Your task to perform on an android device: uninstall "Google Home" Image 0: 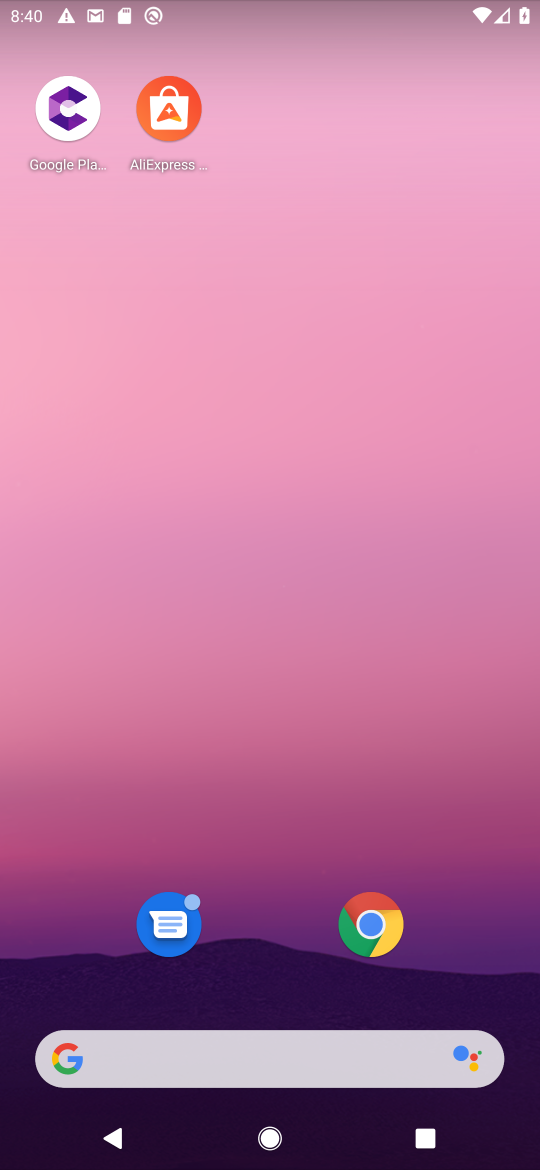
Step 0: press home button
Your task to perform on an android device: uninstall "Google Home" Image 1: 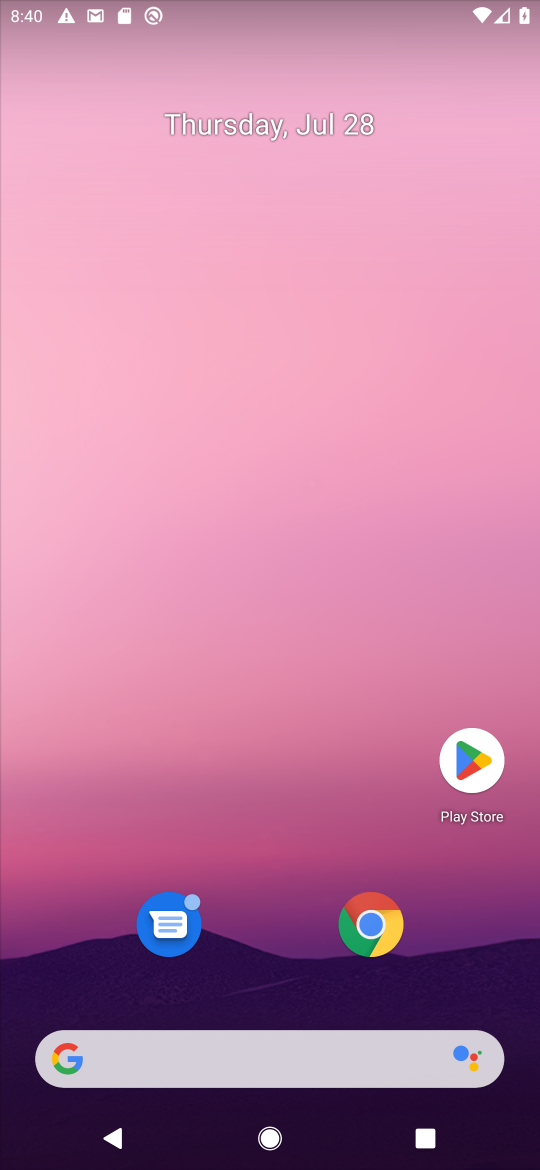
Step 1: drag from (223, 1049) to (414, 126)
Your task to perform on an android device: uninstall "Google Home" Image 2: 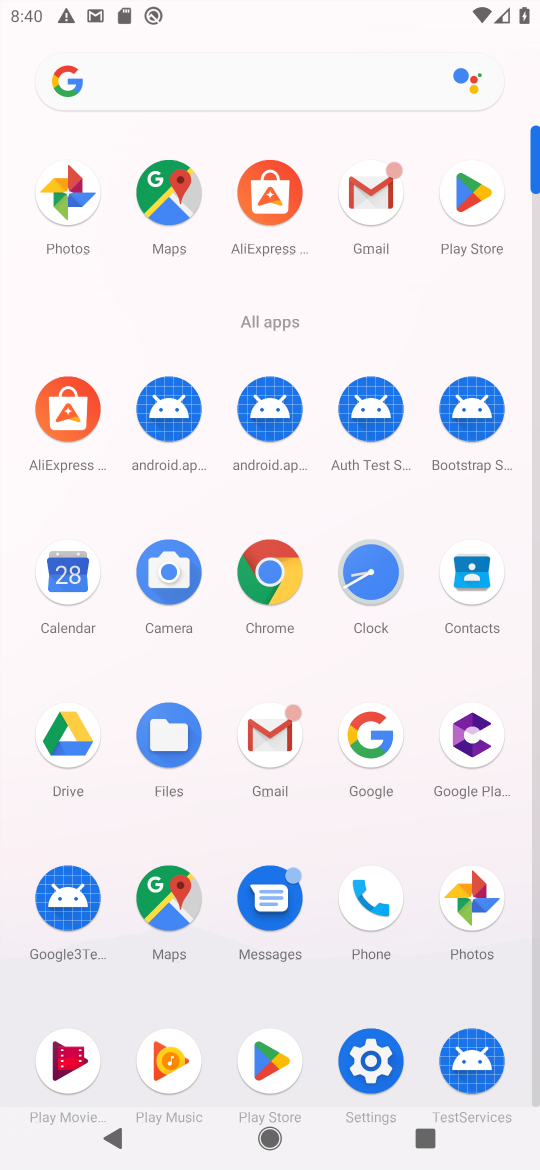
Step 2: click (489, 186)
Your task to perform on an android device: uninstall "Google Home" Image 3: 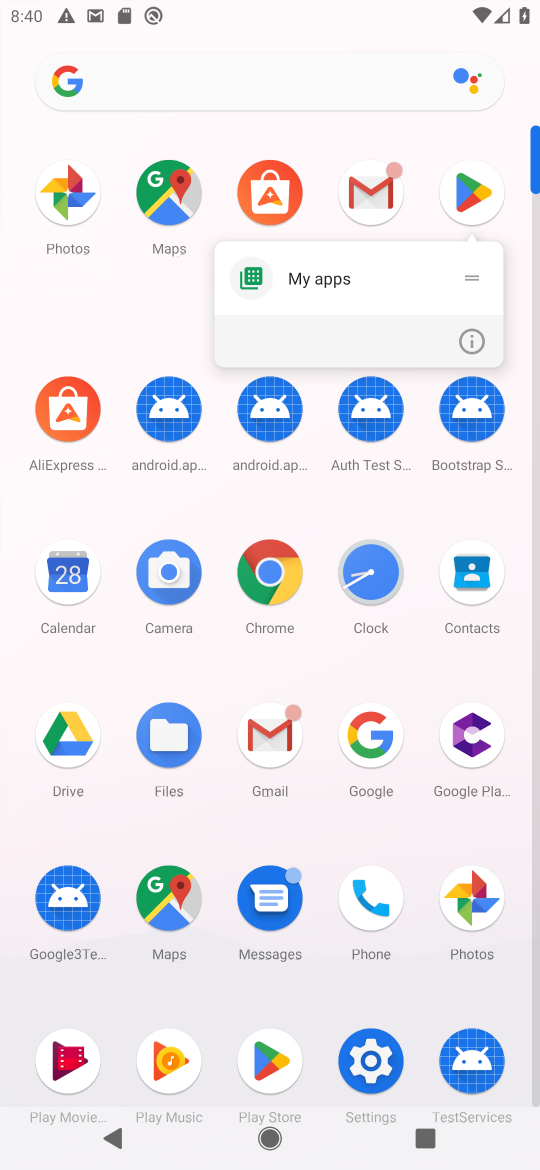
Step 3: click (454, 185)
Your task to perform on an android device: uninstall "Google Home" Image 4: 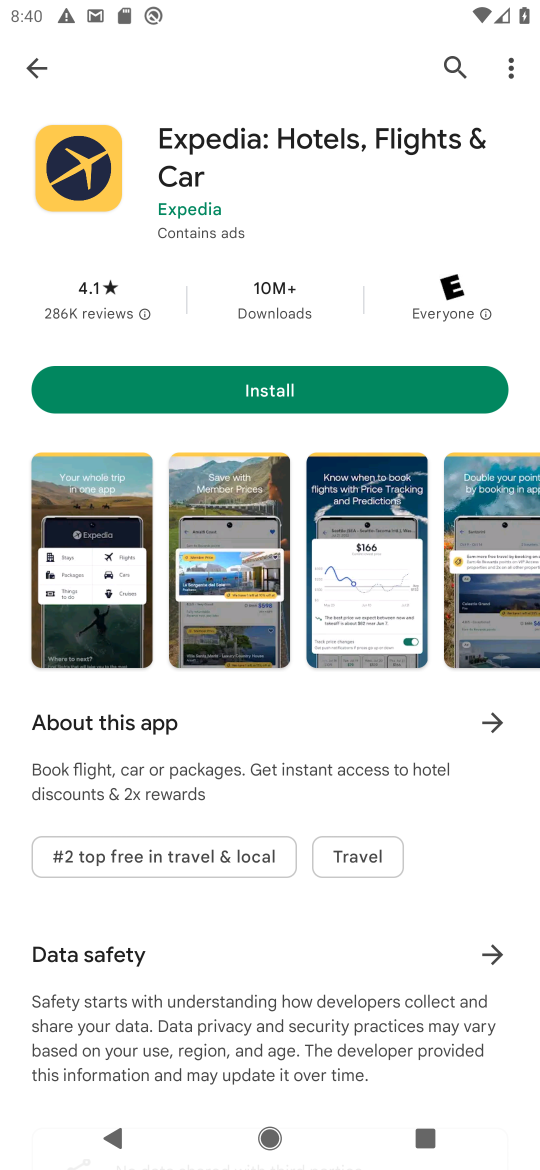
Step 4: click (444, 56)
Your task to perform on an android device: uninstall "Google Home" Image 5: 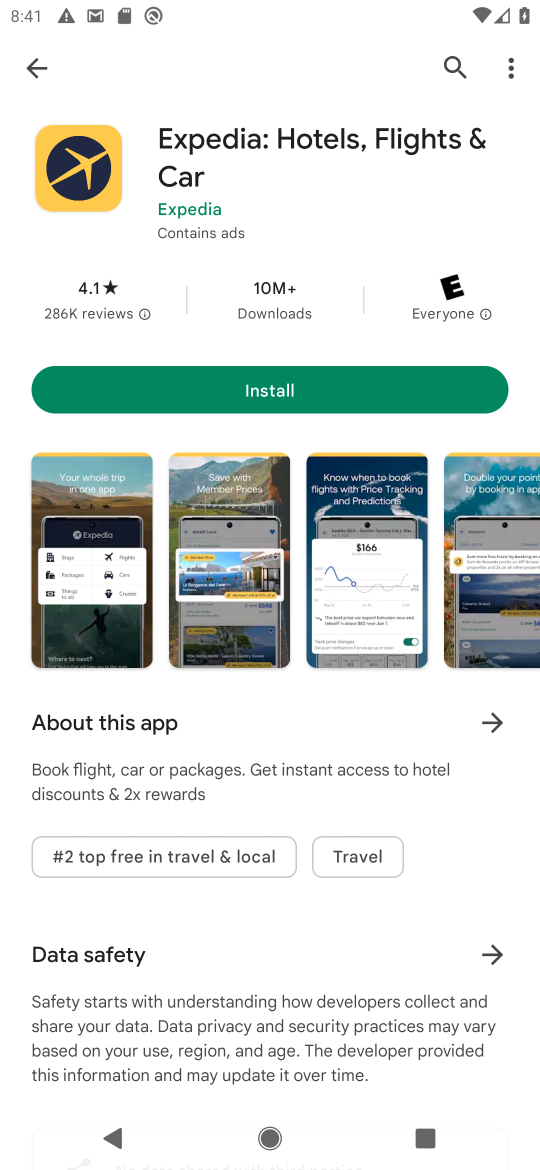
Step 5: click (450, 60)
Your task to perform on an android device: uninstall "Google Home" Image 6: 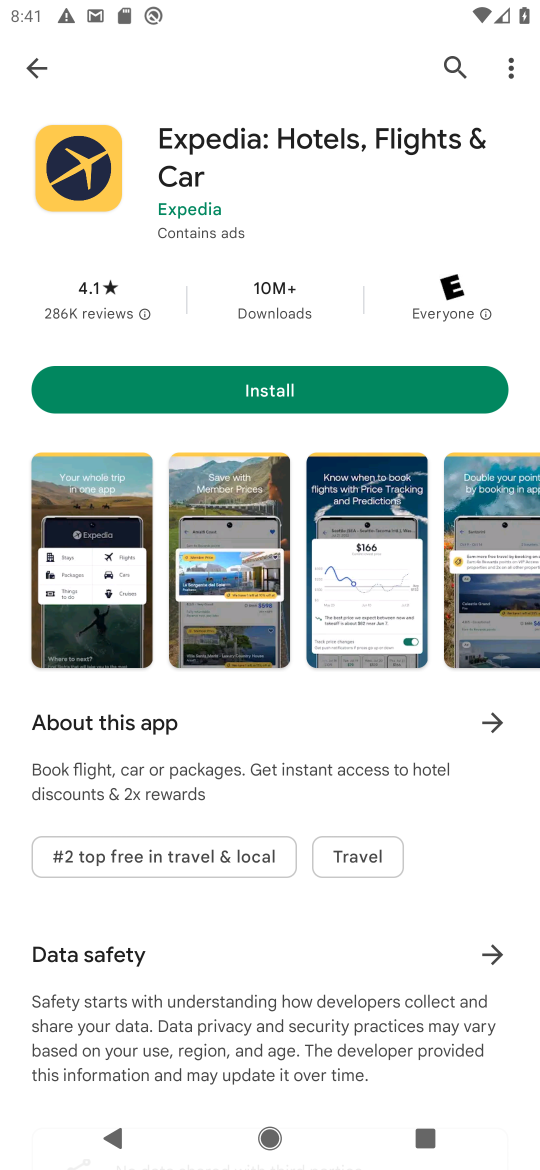
Step 6: click (40, 55)
Your task to perform on an android device: uninstall "Google Home" Image 7: 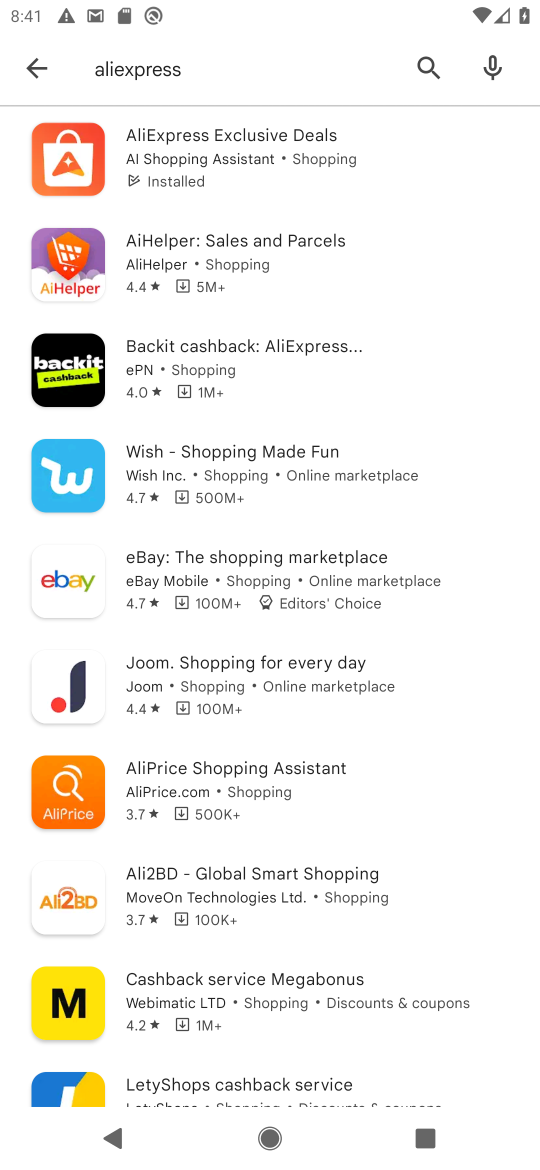
Step 7: click (416, 63)
Your task to perform on an android device: uninstall "Google Home" Image 8: 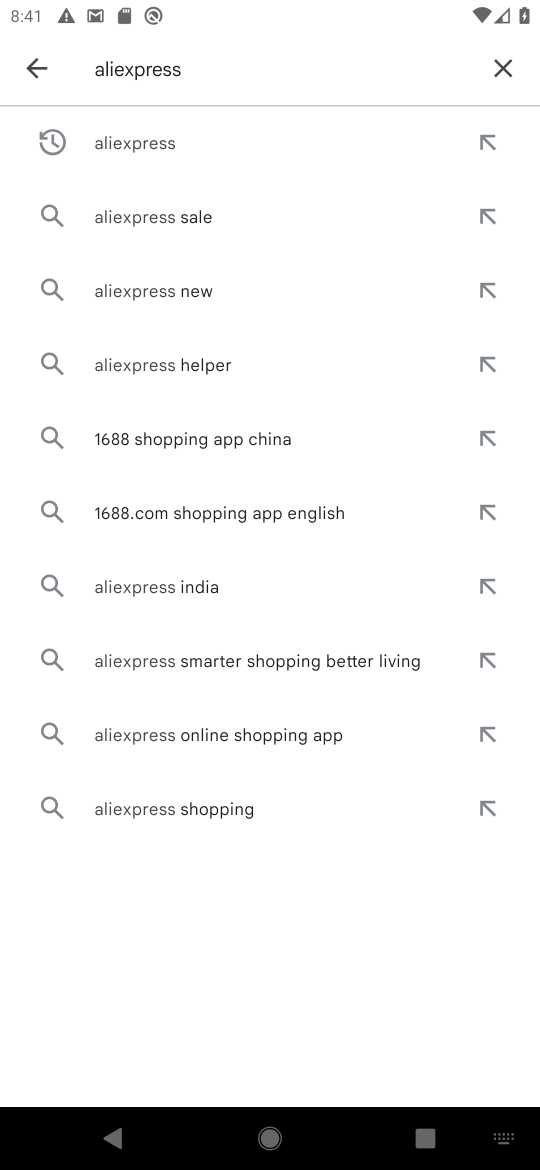
Step 8: click (496, 61)
Your task to perform on an android device: uninstall "Google Home" Image 9: 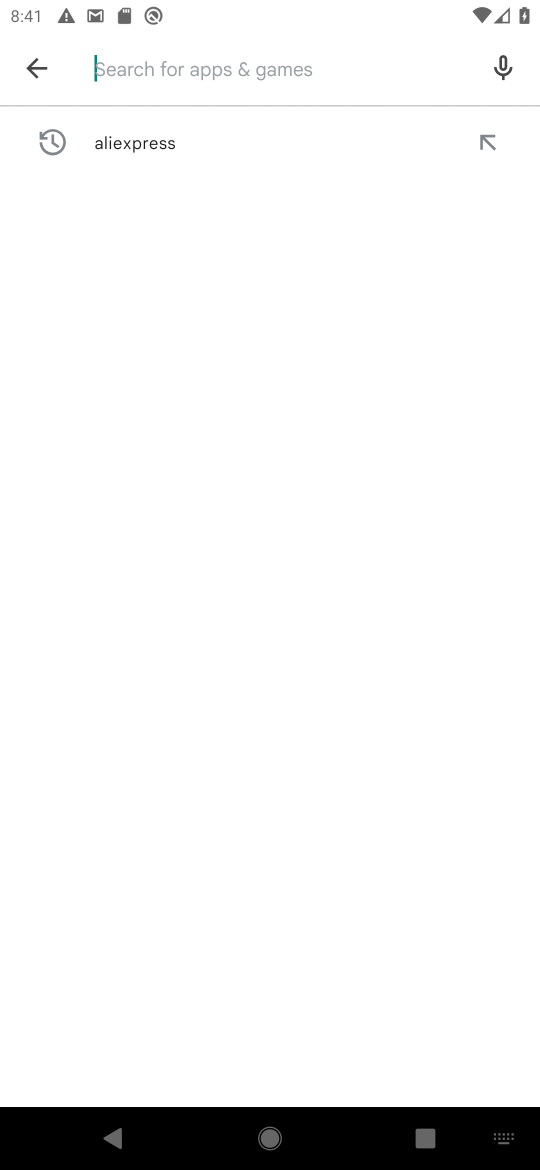
Step 9: click (91, 60)
Your task to perform on an android device: uninstall "Google Home" Image 10: 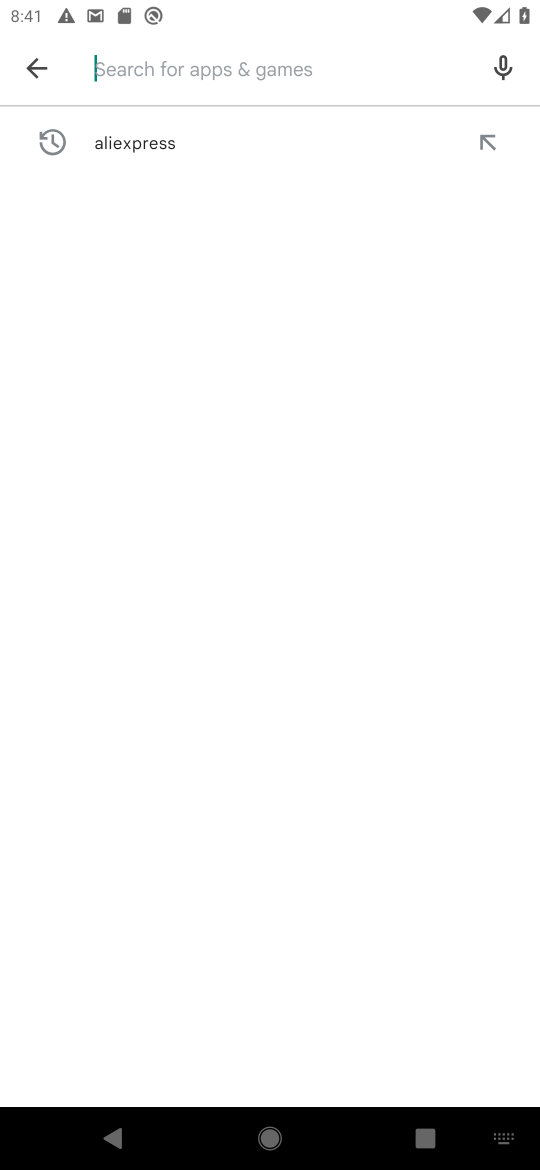
Step 10: type "Google Home"
Your task to perform on an android device: uninstall "Google Home" Image 11: 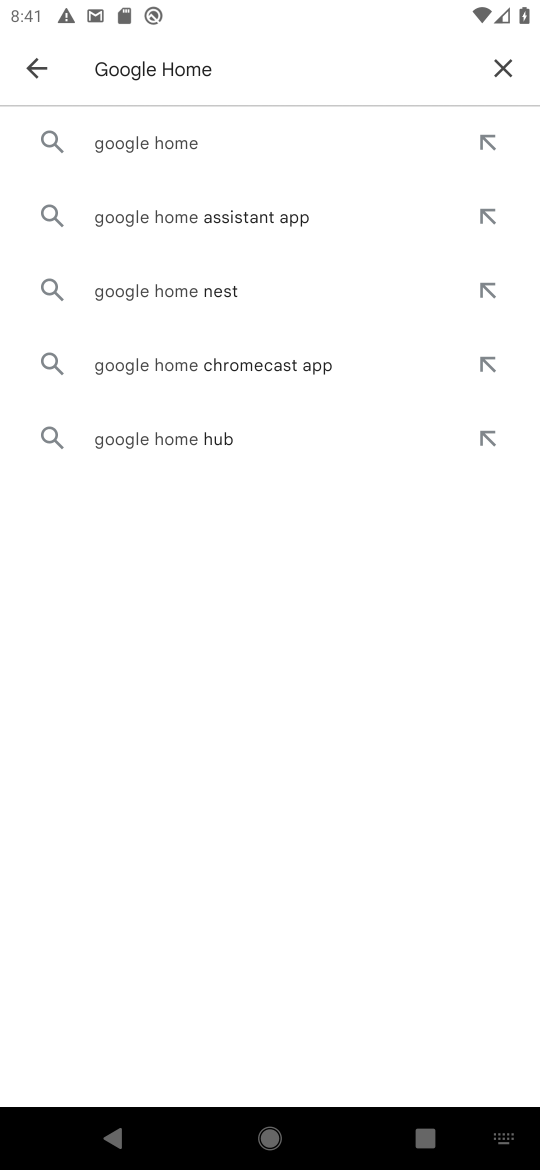
Step 11: click (174, 139)
Your task to perform on an android device: uninstall "Google Home" Image 12: 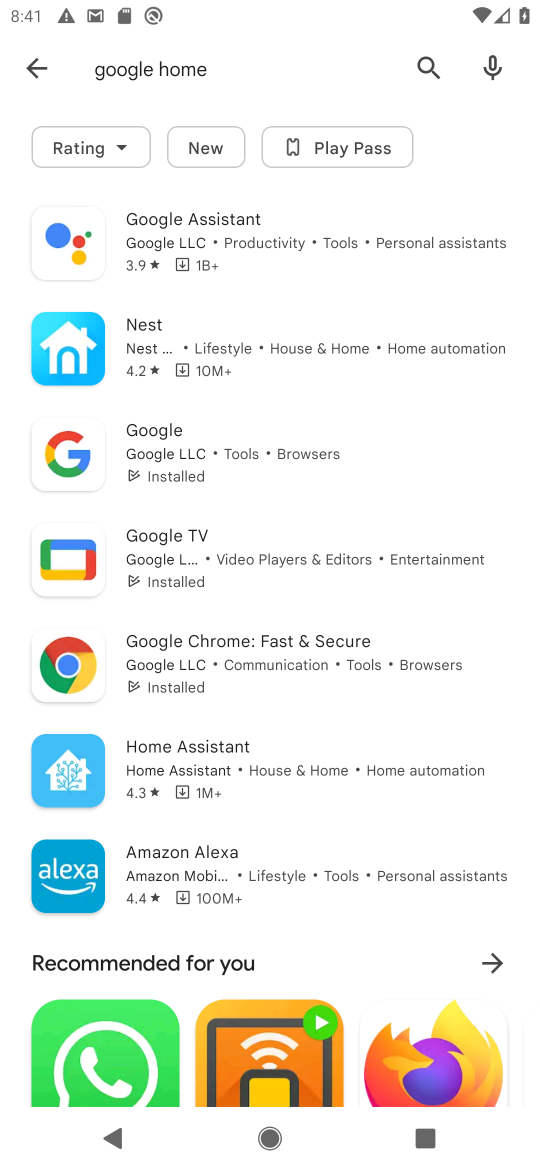
Step 12: click (189, 439)
Your task to perform on an android device: uninstall "Google Home" Image 13: 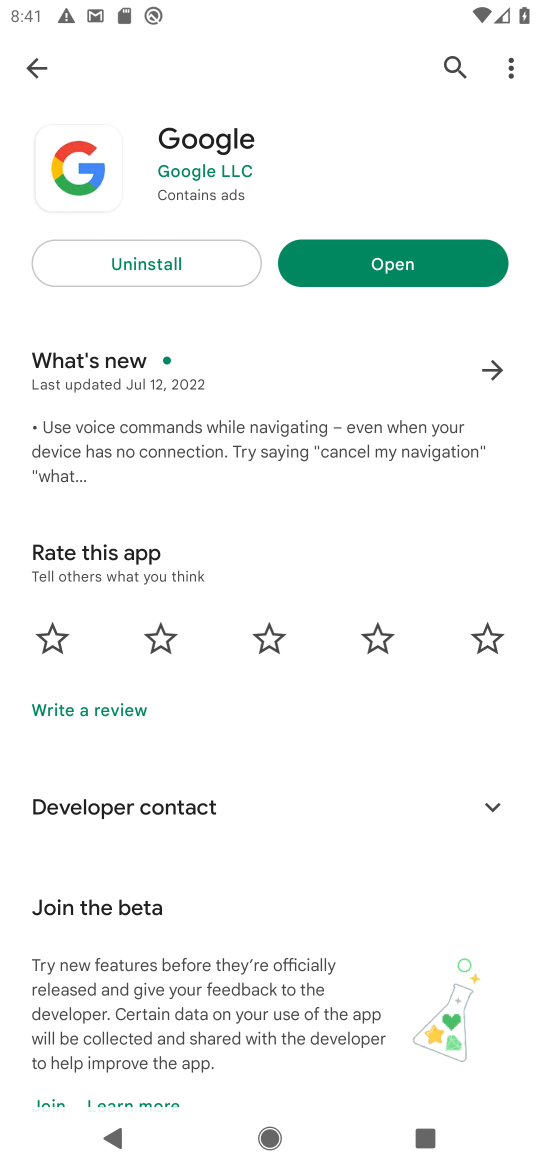
Step 13: click (36, 65)
Your task to perform on an android device: uninstall "Google Home" Image 14: 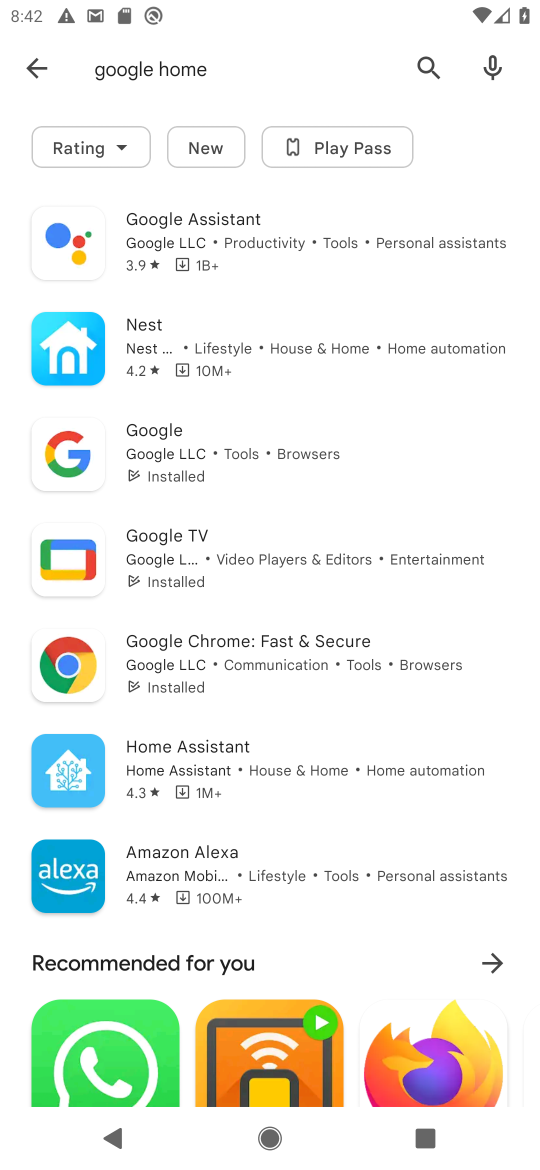
Step 14: task complete